Your task to perform on an android device: change the clock display to digital Image 0: 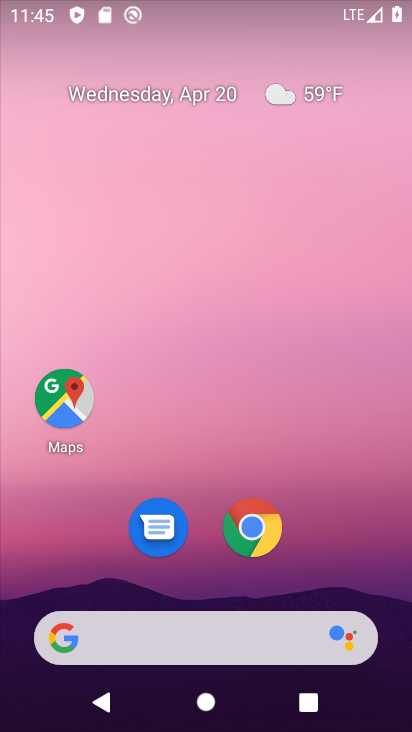
Step 0: drag from (369, 548) to (358, 142)
Your task to perform on an android device: change the clock display to digital Image 1: 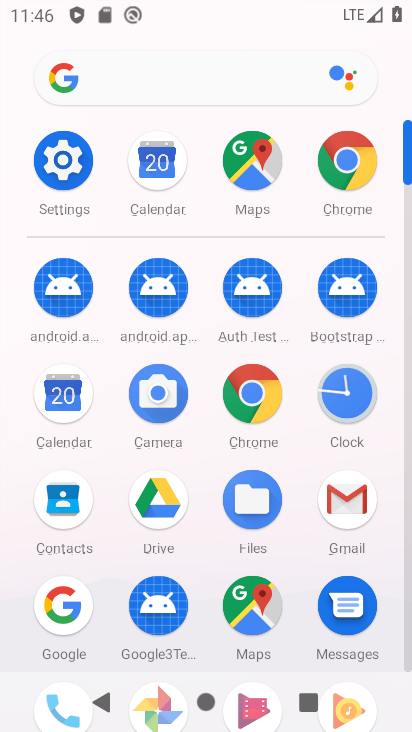
Step 1: click (339, 394)
Your task to perform on an android device: change the clock display to digital Image 2: 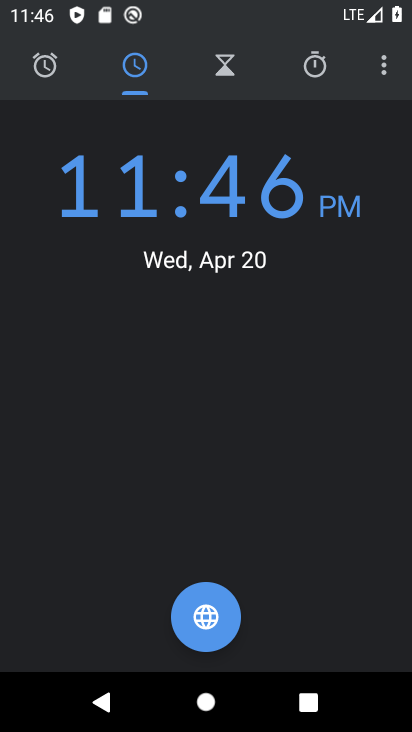
Step 2: click (377, 74)
Your task to perform on an android device: change the clock display to digital Image 3: 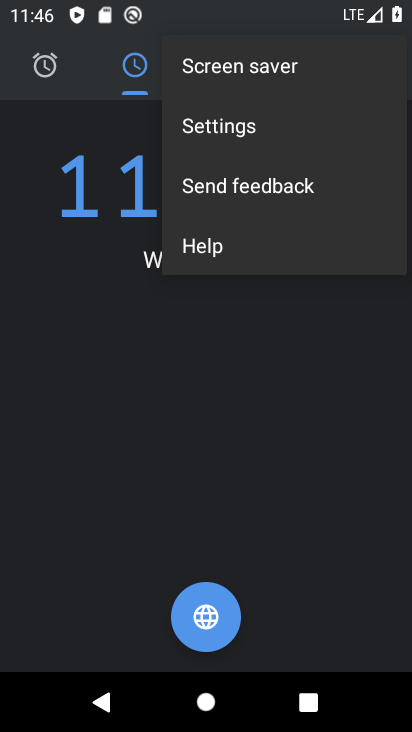
Step 3: click (207, 128)
Your task to perform on an android device: change the clock display to digital Image 4: 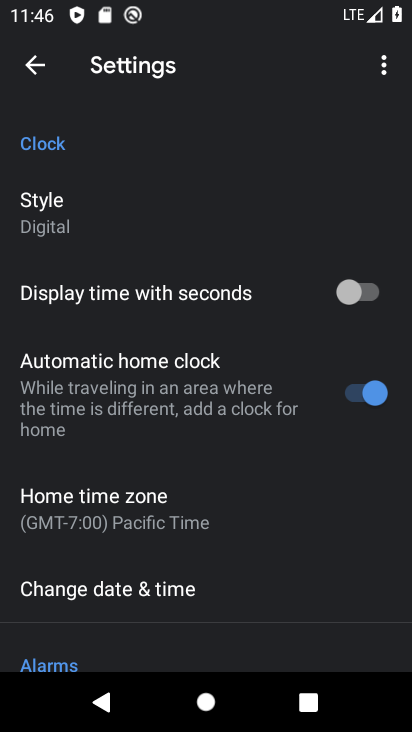
Step 4: task complete